Your task to perform on an android device: open wifi settings Image 0: 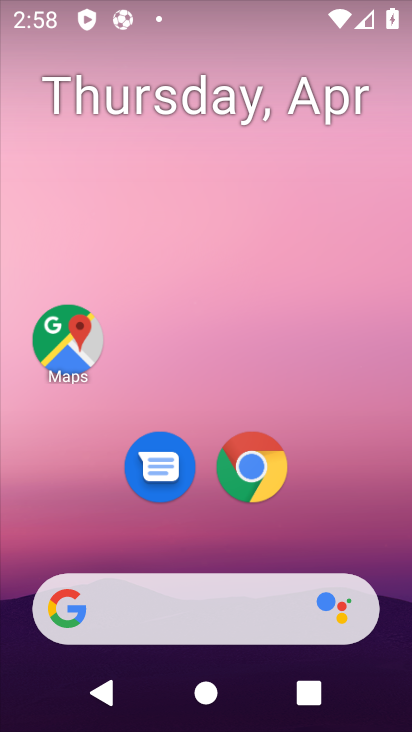
Step 0: drag from (351, 530) to (363, 105)
Your task to perform on an android device: open wifi settings Image 1: 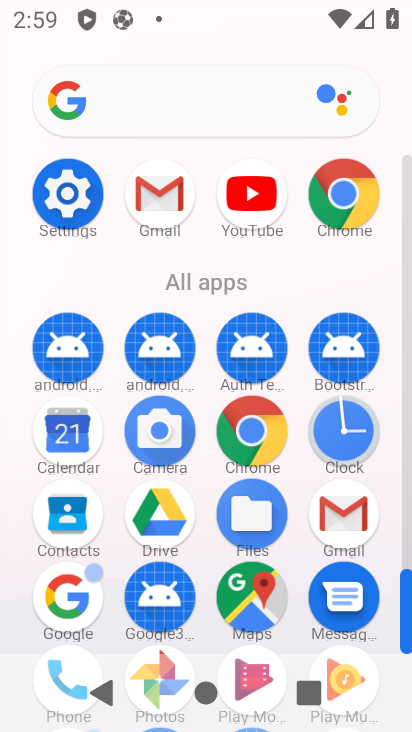
Step 1: click (73, 196)
Your task to perform on an android device: open wifi settings Image 2: 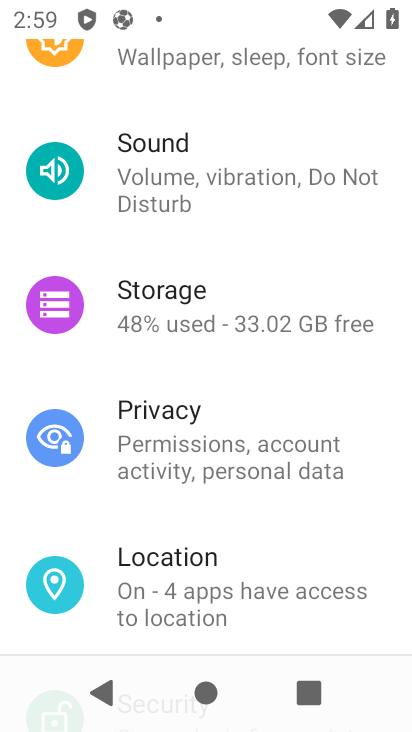
Step 2: drag from (229, 223) to (244, 615)
Your task to perform on an android device: open wifi settings Image 3: 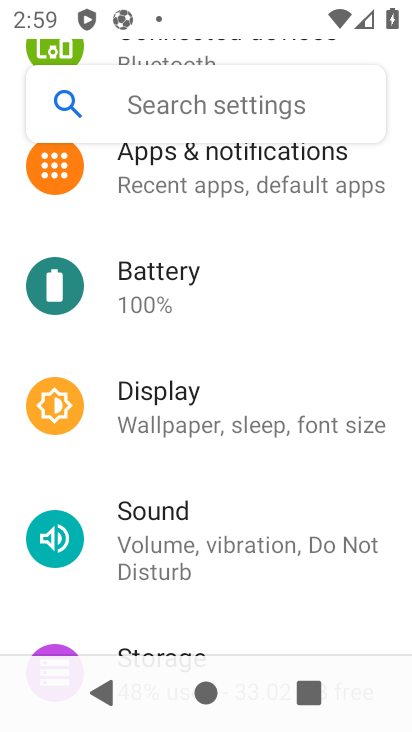
Step 3: drag from (221, 260) to (240, 610)
Your task to perform on an android device: open wifi settings Image 4: 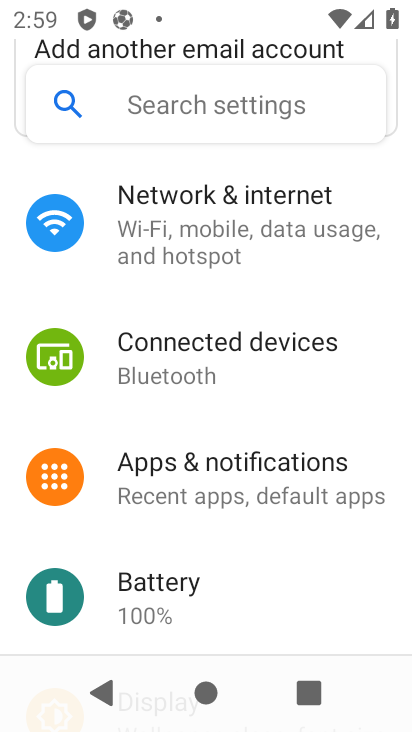
Step 4: click (217, 213)
Your task to perform on an android device: open wifi settings Image 5: 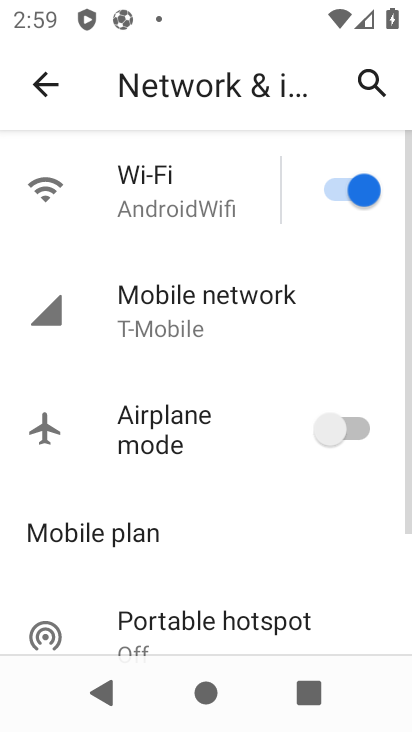
Step 5: click (186, 187)
Your task to perform on an android device: open wifi settings Image 6: 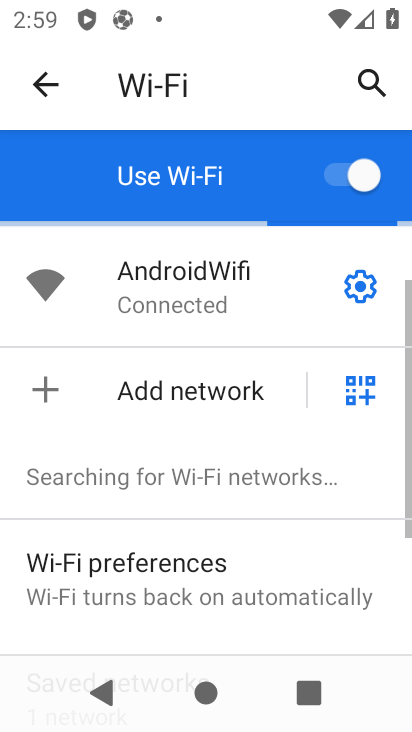
Step 6: task complete